Your task to perform on an android device: Open ESPN.com Image 0: 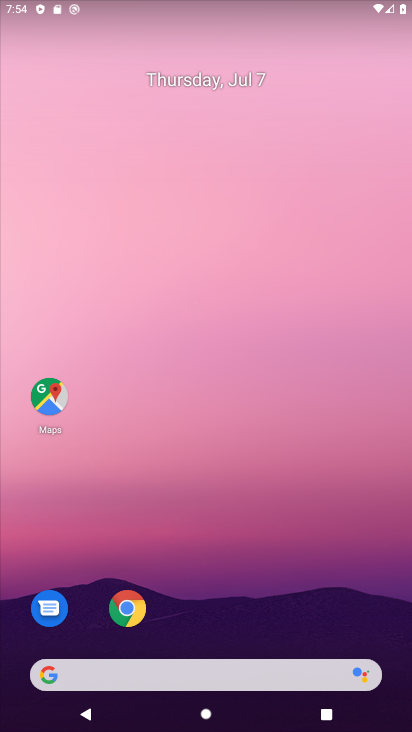
Step 0: drag from (353, 595) to (377, 43)
Your task to perform on an android device: Open ESPN.com Image 1: 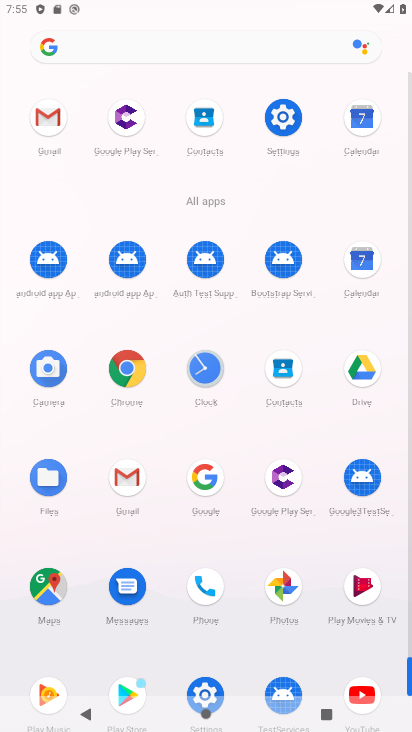
Step 1: click (129, 373)
Your task to perform on an android device: Open ESPN.com Image 2: 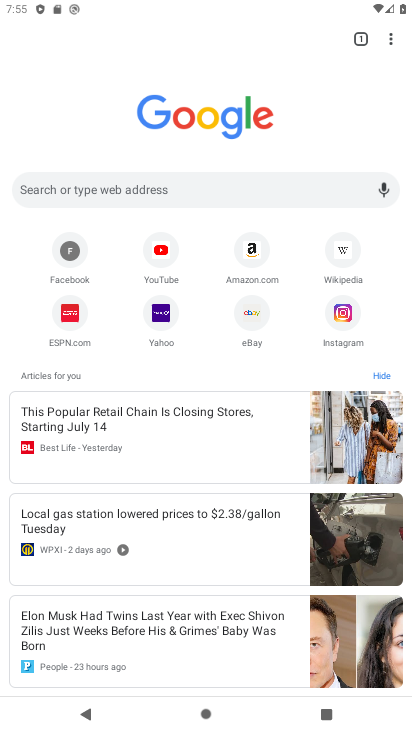
Step 2: click (175, 193)
Your task to perform on an android device: Open ESPN.com Image 3: 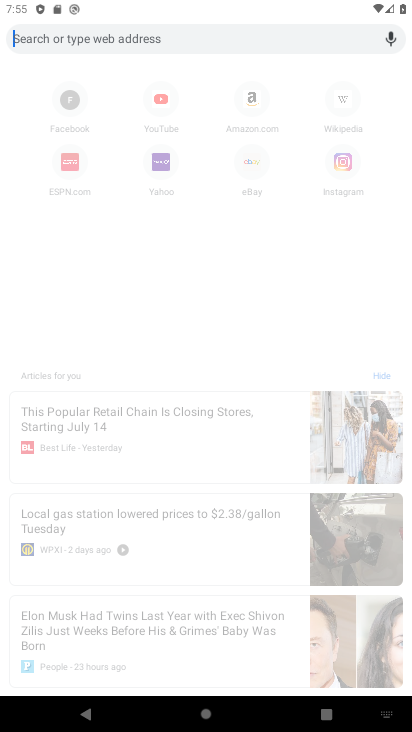
Step 3: type "espn.com"
Your task to perform on an android device: Open ESPN.com Image 4: 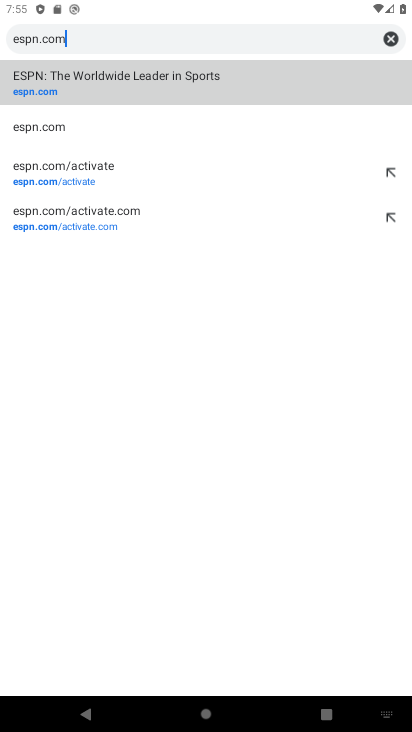
Step 4: click (173, 89)
Your task to perform on an android device: Open ESPN.com Image 5: 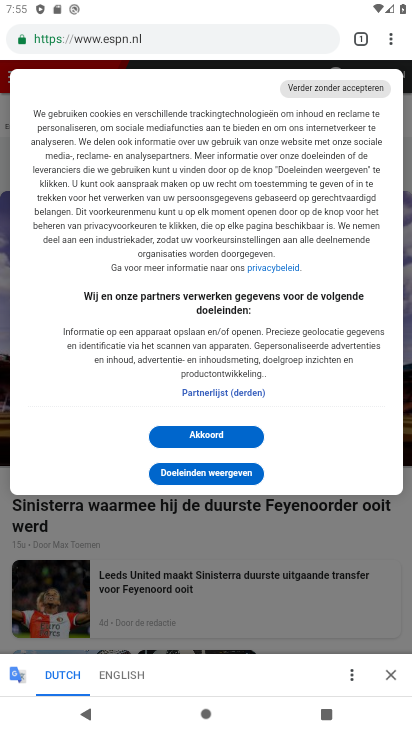
Step 5: task complete